Your task to perform on an android device: Open settings on Google Maps Image 0: 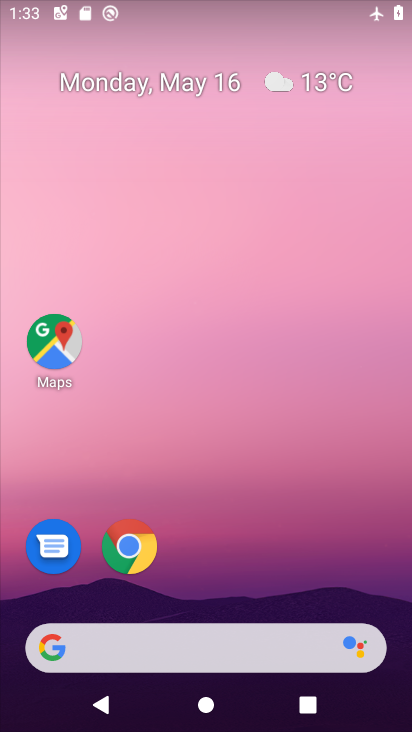
Step 0: drag from (219, 725) to (220, 53)
Your task to perform on an android device: Open settings on Google Maps Image 1: 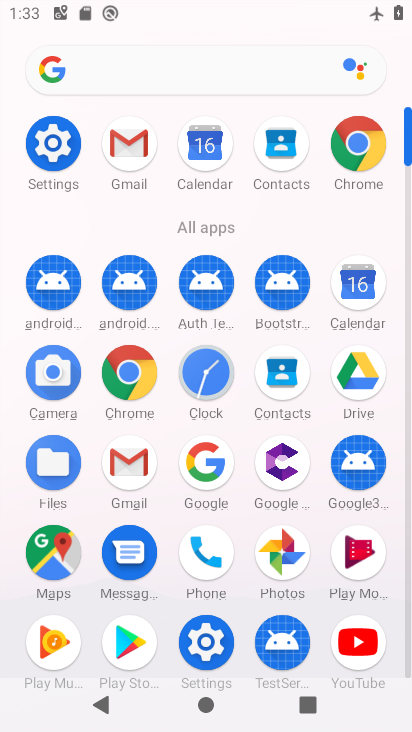
Step 1: click (51, 542)
Your task to perform on an android device: Open settings on Google Maps Image 2: 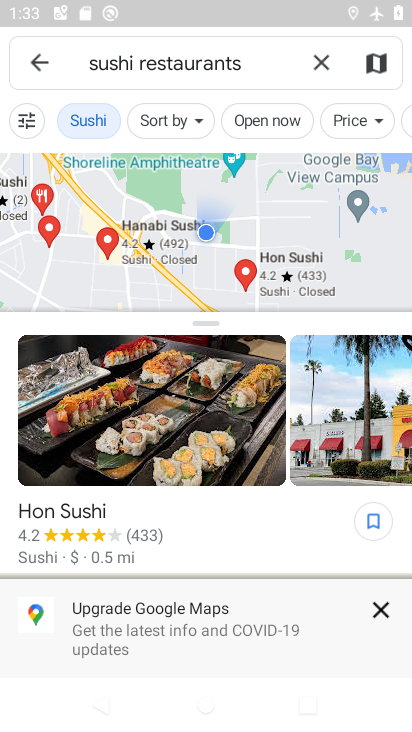
Step 2: click (42, 59)
Your task to perform on an android device: Open settings on Google Maps Image 3: 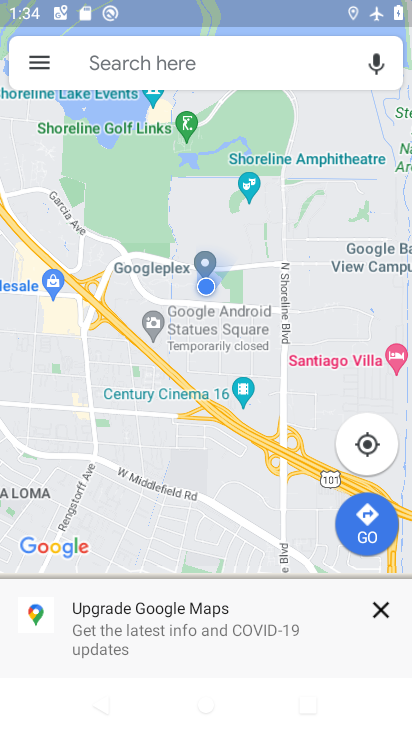
Step 3: click (39, 60)
Your task to perform on an android device: Open settings on Google Maps Image 4: 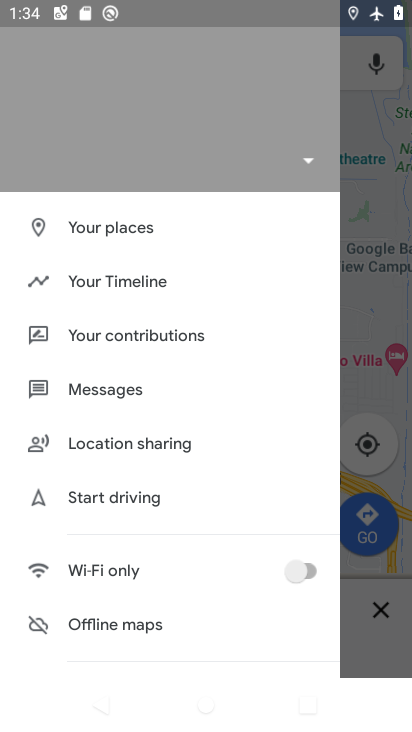
Step 4: drag from (120, 547) to (120, 226)
Your task to perform on an android device: Open settings on Google Maps Image 5: 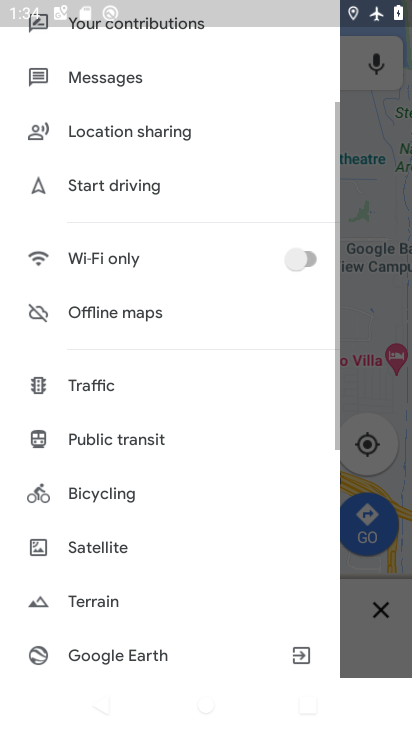
Step 5: drag from (123, 611) to (112, 239)
Your task to perform on an android device: Open settings on Google Maps Image 6: 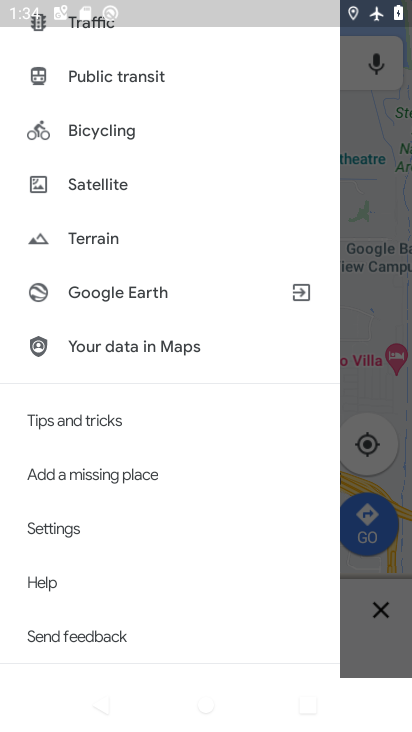
Step 6: click (59, 527)
Your task to perform on an android device: Open settings on Google Maps Image 7: 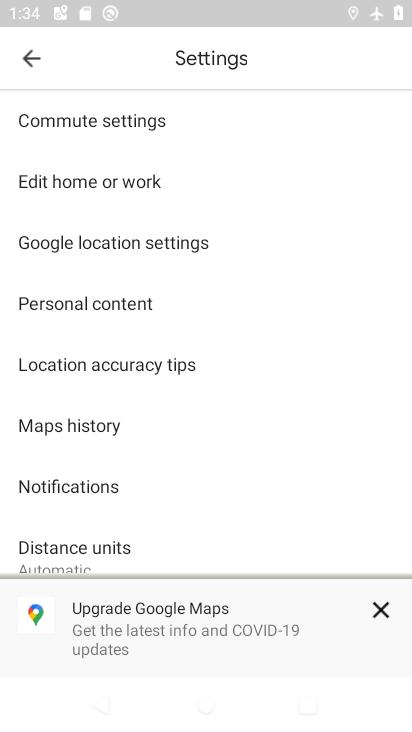
Step 7: task complete